Your task to perform on an android device: make emails show in primary in the gmail app Image 0: 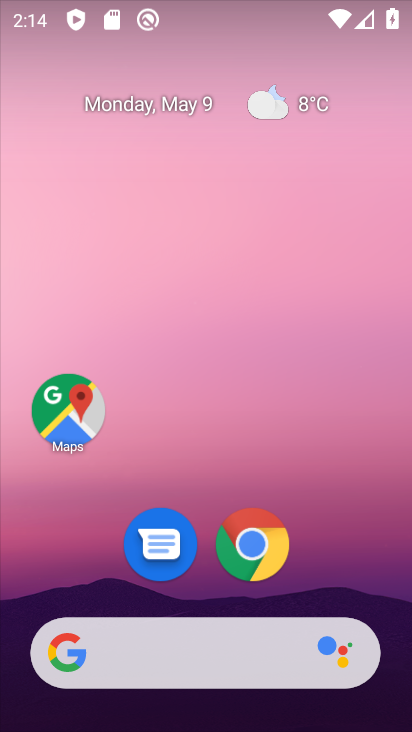
Step 0: drag from (322, 526) to (79, 77)
Your task to perform on an android device: make emails show in primary in the gmail app Image 1: 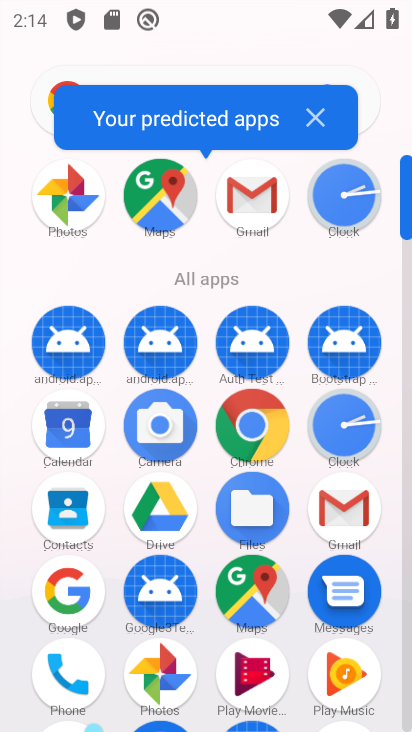
Step 1: click (262, 203)
Your task to perform on an android device: make emails show in primary in the gmail app Image 2: 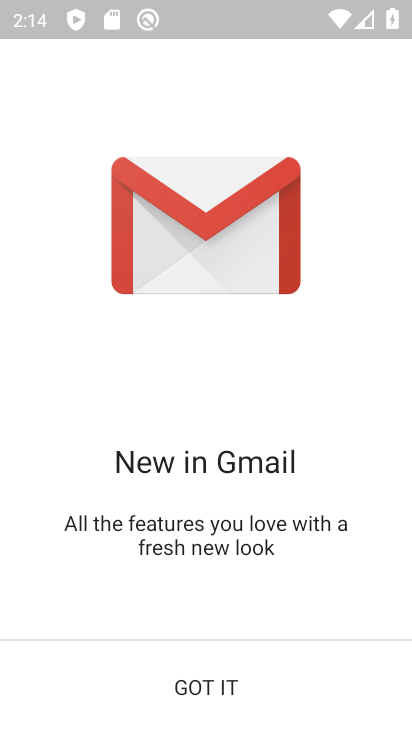
Step 2: click (219, 710)
Your task to perform on an android device: make emails show in primary in the gmail app Image 3: 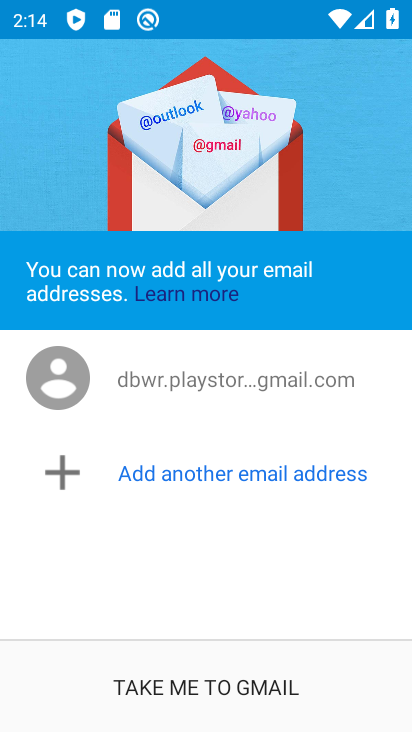
Step 3: click (213, 705)
Your task to perform on an android device: make emails show in primary in the gmail app Image 4: 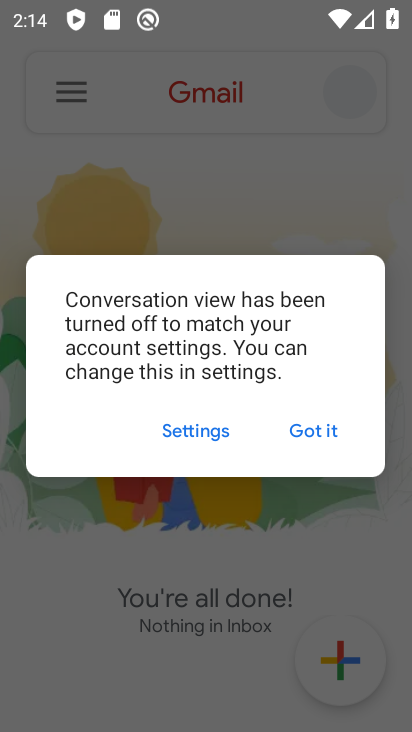
Step 4: click (310, 421)
Your task to perform on an android device: make emails show in primary in the gmail app Image 5: 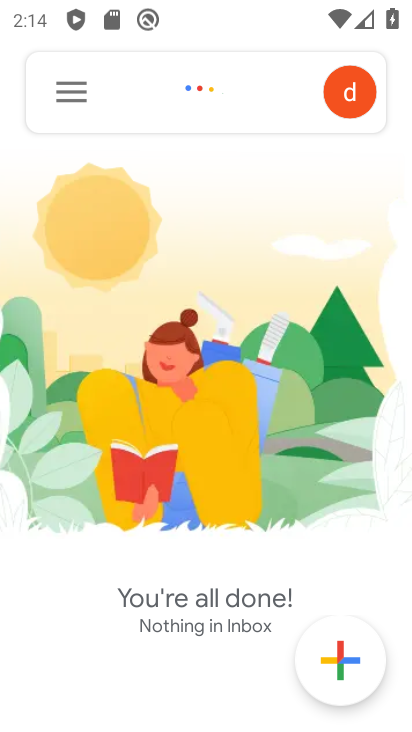
Step 5: click (74, 109)
Your task to perform on an android device: make emails show in primary in the gmail app Image 6: 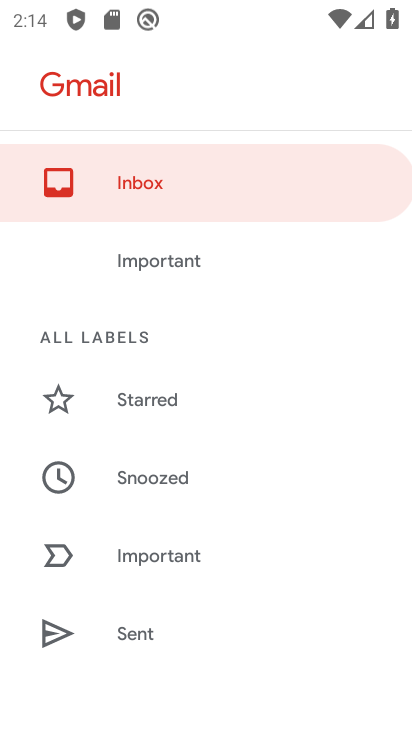
Step 6: drag from (186, 192) to (138, 148)
Your task to perform on an android device: make emails show in primary in the gmail app Image 7: 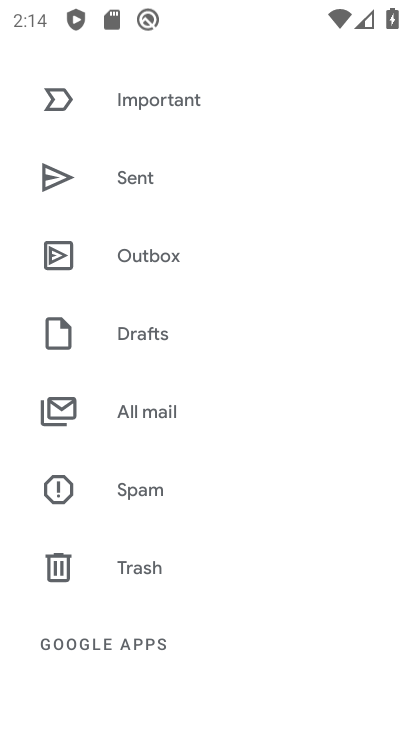
Step 7: drag from (169, 641) to (155, 182)
Your task to perform on an android device: make emails show in primary in the gmail app Image 8: 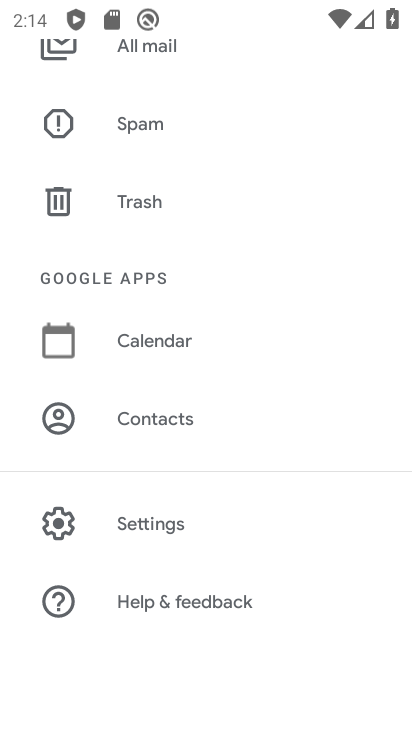
Step 8: click (142, 521)
Your task to perform on an android device: make emails show in primary in the gmail app Image 9: 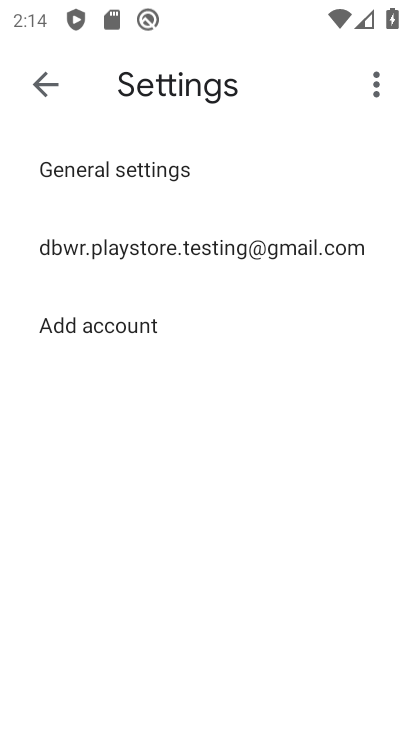
Step 9: click (154, 242)
Your task to perform on an android device: make emails show in primary in the gmail app Image 10: 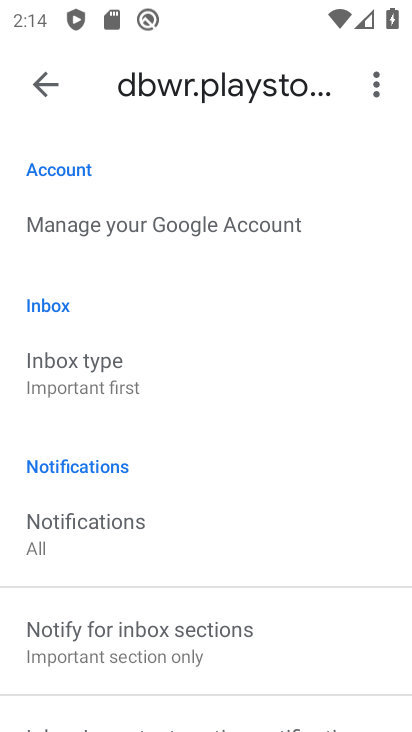
Step 10: click (122, 387)
Your task to perform on an android device: make emails show in primary in the gmail app Image 11: 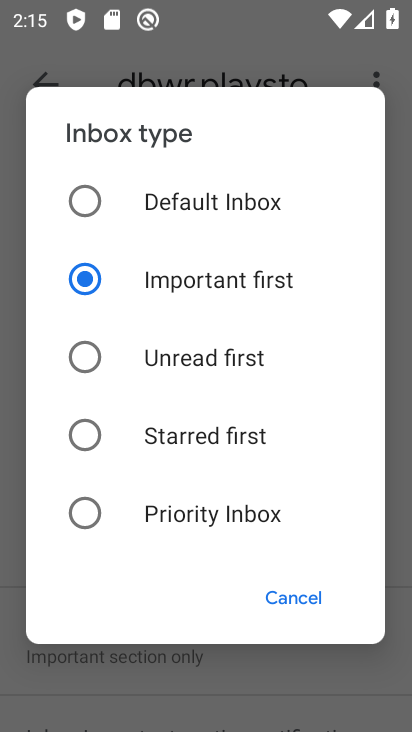
Step 11: click (91, 199)
Your task to perform on an android device: make emails show in primary in the gmail app Image 12: 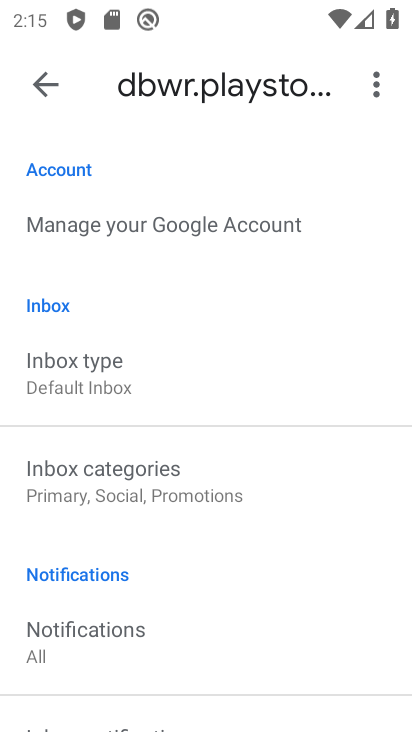
Step 12: press back button
Your task to perform on an android device: make emails show in primary in the gmail app Image 13: 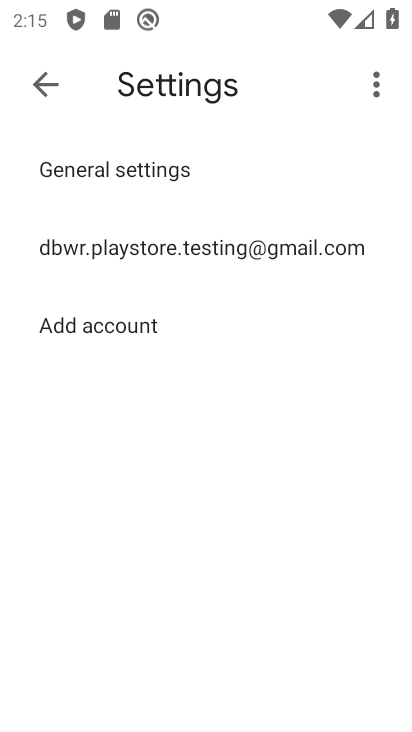
Step 13: press back button
Your task to perform on an android device: make emails show in primary in the gmail app Image 14: 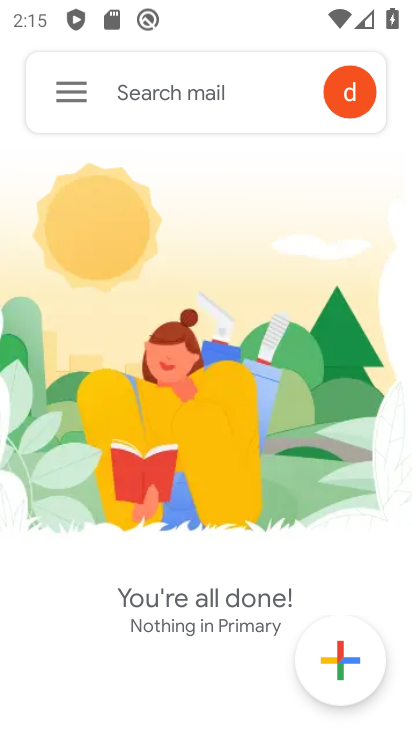
Step 14: click (82, 105)
Your task to perform on an android device: make emails show in primary in the gmail app Image 15: 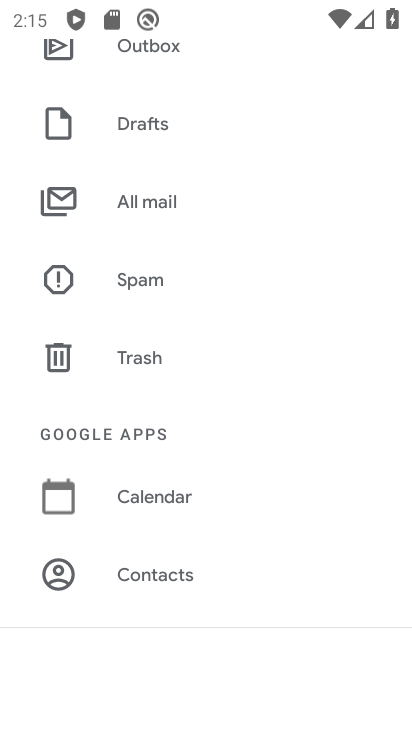
Step 15: task complete